Your task to perform on an android device: Open Chrome and go to settings Image 0: 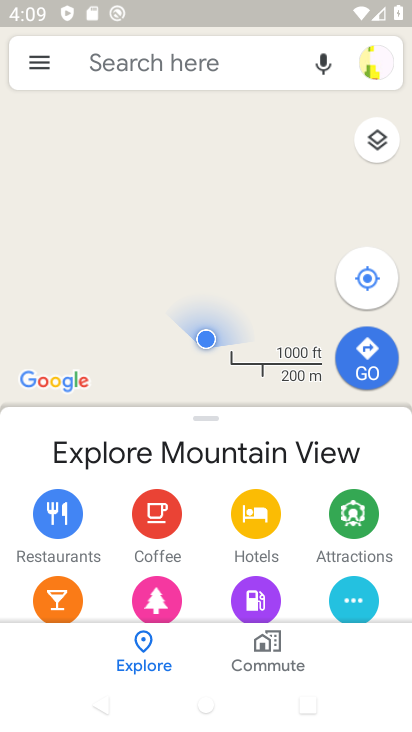
Step 0: press home button
Your task to perform on an android device: Open Chrome and go to settings Image 1: 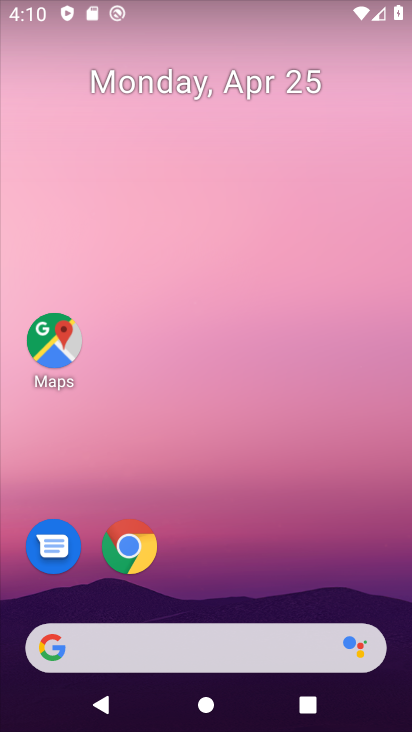
Step 1: click (143, 552)
Your task to perform on an android device: Open Chrome and go to settings Image 2: 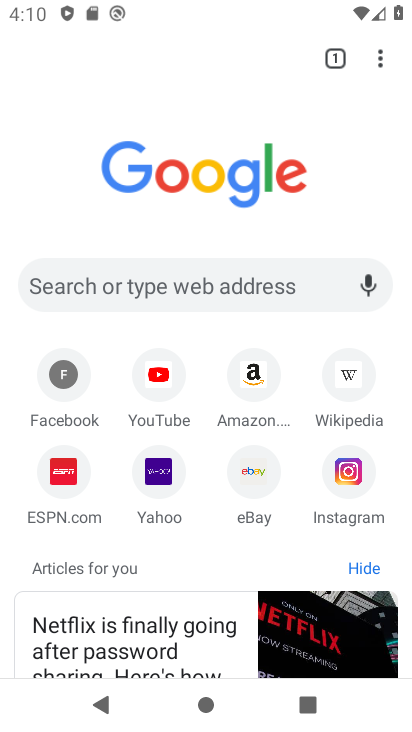
Step 2: task complete